Your task to perform on an android device: When is my next meeting? Image 0: 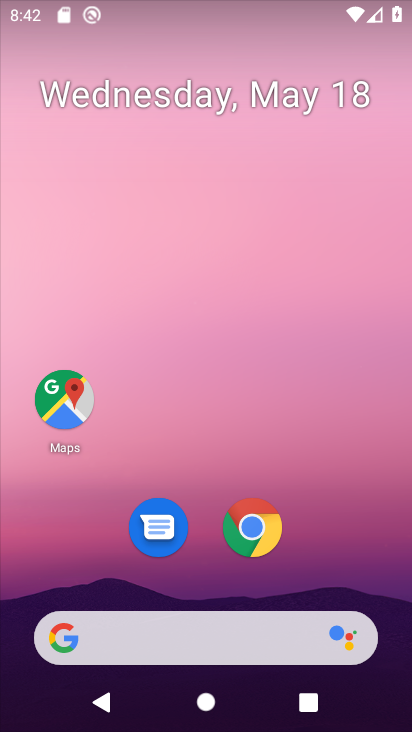
Step 0: drag from (317, 546) to (162, 0)
Your task to perform on an android device: When is my next meeting? Image 1: 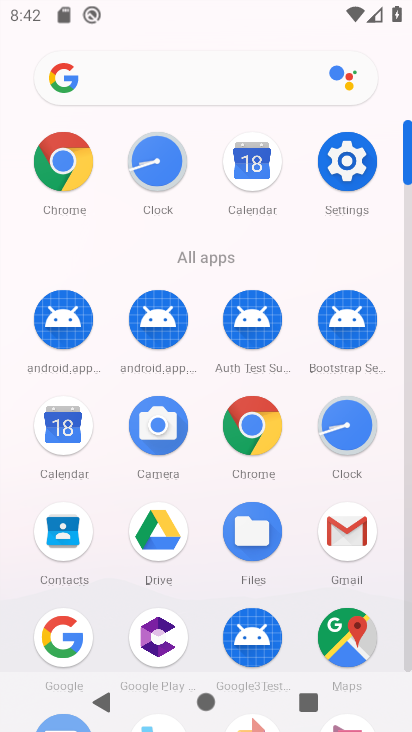
Step 1: click (69, 454)
Your task to perform on an android device: When is my next meeting? Image 2: 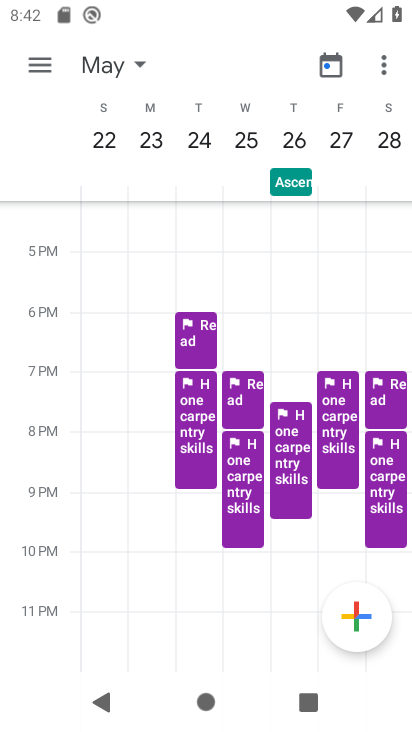
Step 2: click (50, 73)
Your task to perform on an android device: When is my next meeting? Image 3: 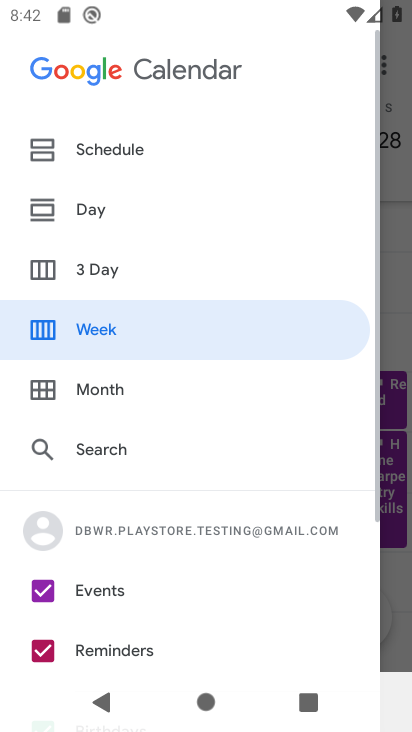
Step 3: click (106, 166)
Your task to perform on an android device: When is my next meeting? Image 4: 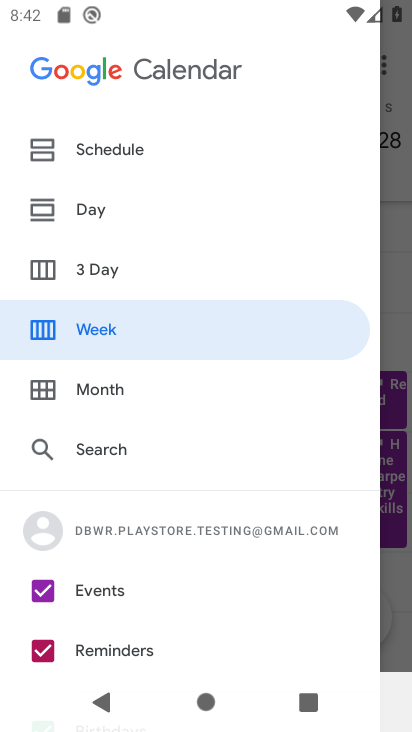
Step 4: click (107, 159)
Your task to perform on an android device: When is my next meeting? Image 5: 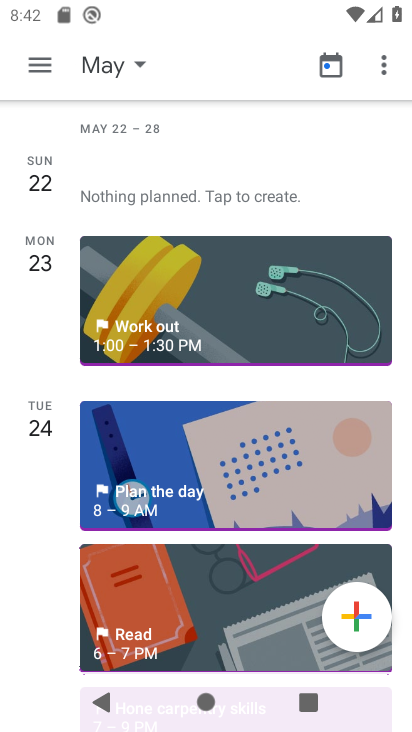
Step 5: click (95, 69)
Your task to perform on an android device: When is my next meeting? Image 6: 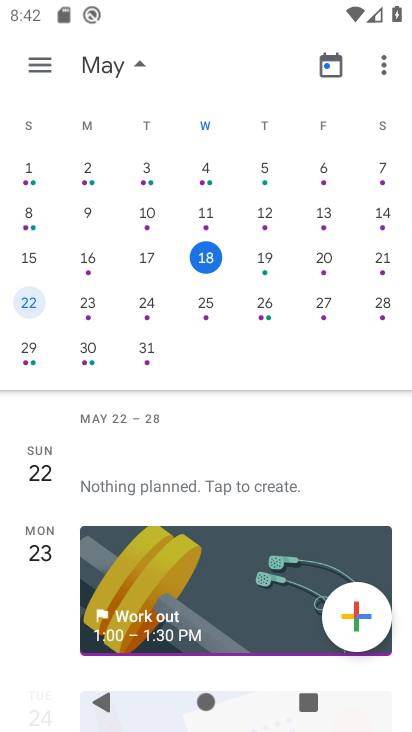
Step 6: click (40, 62)
Your task to perform on an android device: When is my next meeting? Image 7: 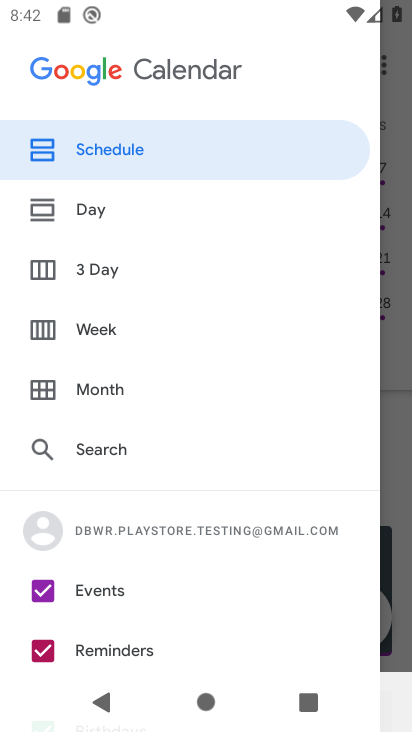
Step 7: click (113, 160)
Your task to perform on an android device: When is my next meeting? Image 8: 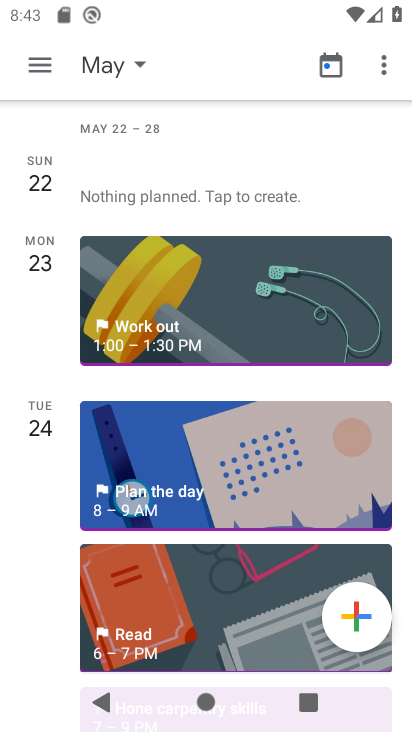
Step 8: task complete